Your task to perform on an android device: Go to internet settings Image 0: 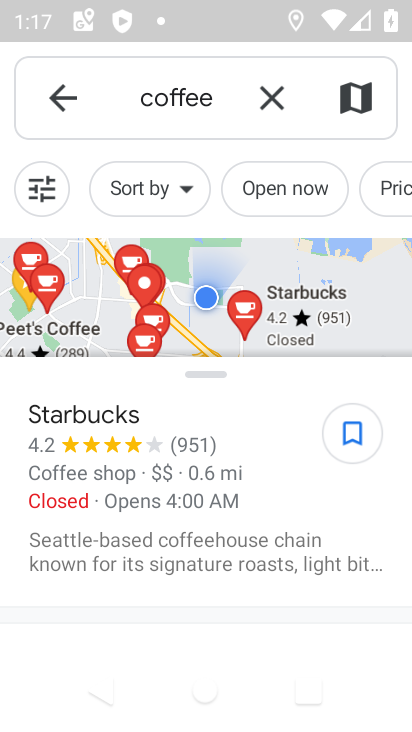
Step 0: press home button
Your task to perform on an android device: Go to internet settings Image 1: 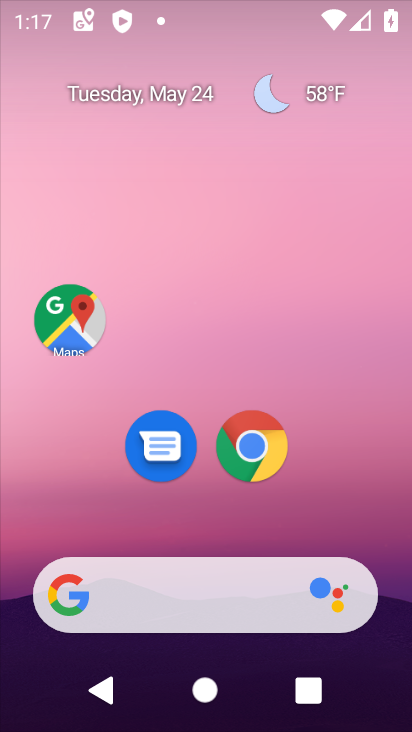
Step 1: drag from (263, 651) to (281, 72)
Your task to perform on an android device: Go to internet settings Image 2: 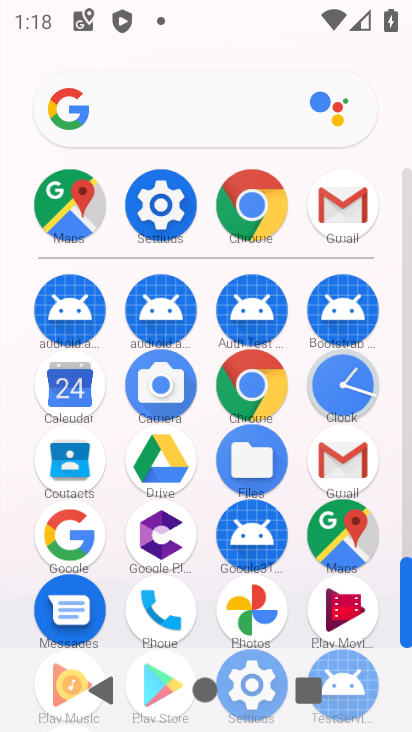
Step 2: click (174, 222)
Your task to perform on an android device: Go to internet settings Image 3: 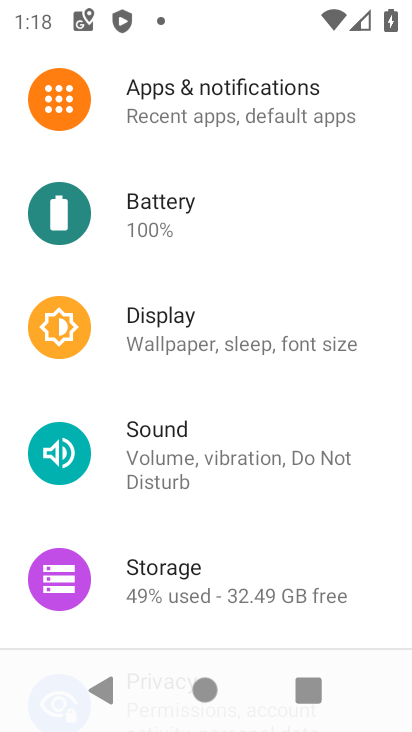
Step 3: drag from (163, 249) to (196, 576)
Your task to perform on an android device: Go to internet settings Image 4: 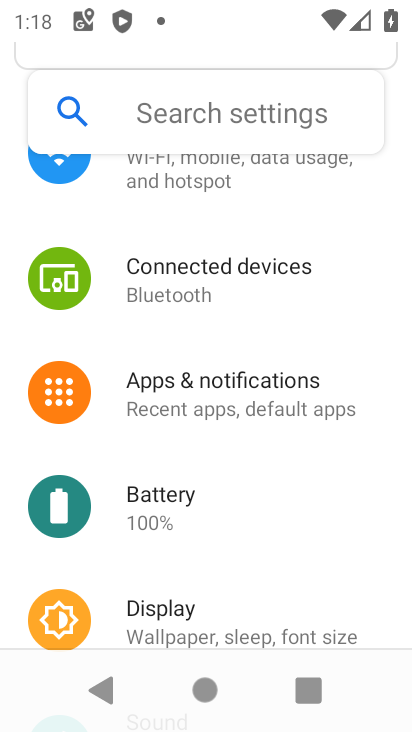
Step 4: drag from (224, 326) to (234, 579)
Your task to perform on an android device: Go to internet settings Image 5: 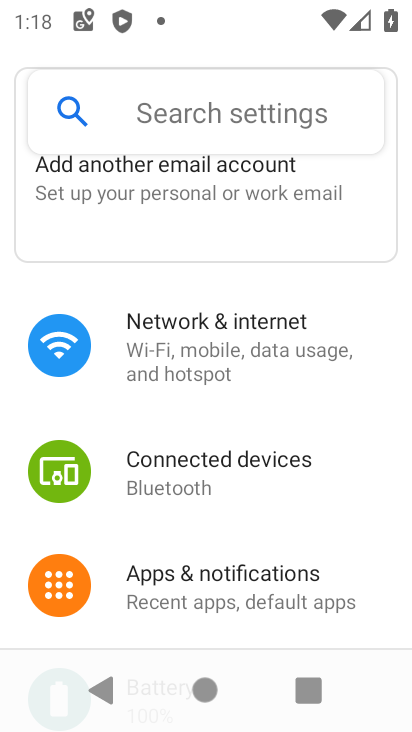
Step 5: click (256, 340)
Your task to perform on an android device: Go to internet settings Image 6: 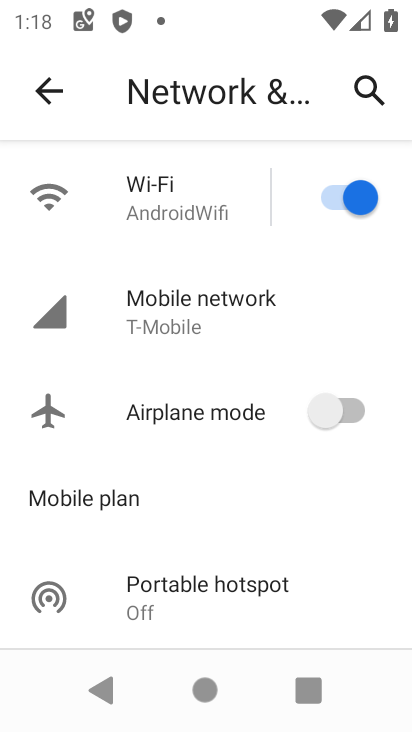
Step 6: click (184, 318)
Your task to perform on an android device: Go to internet settings Image 7: 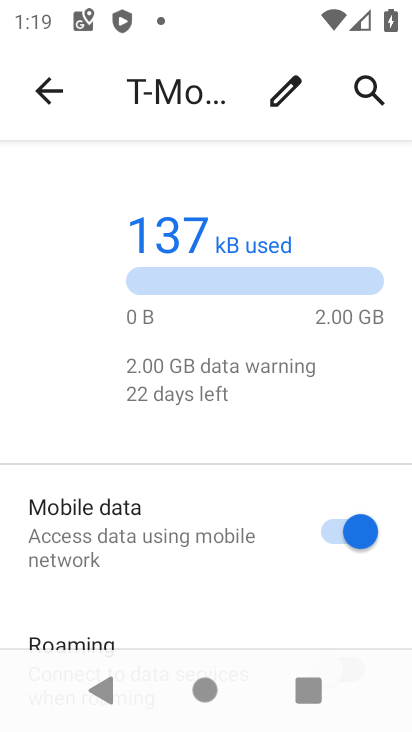
Step 7: task complete